Your task to perform on an android device: Toggle the flashlight Image 0: 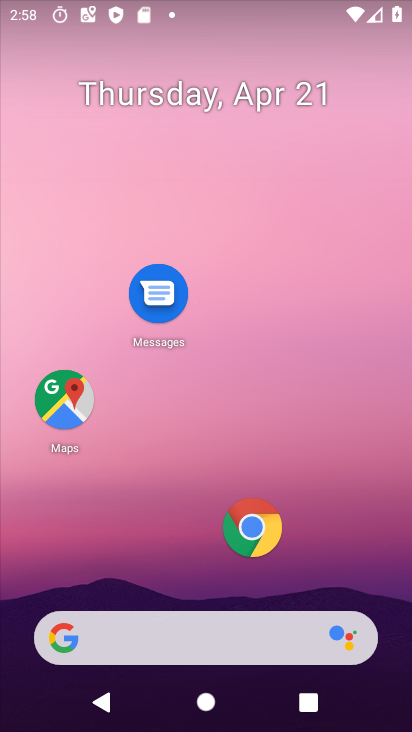
Step 0: drag from (260, 9) to (285, 353)
Your task to perform on an android device: Toggle the flashlight Image 1: 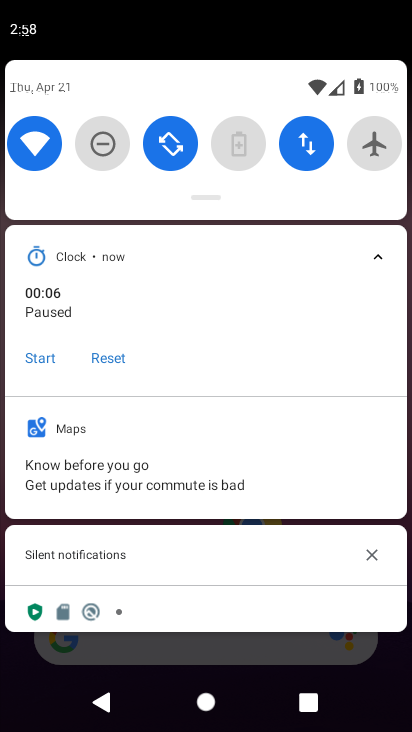
Step 1: drag from (256, 177) to (279, 452)
Your task to perform on an android device: Toggle the flashlight Image 2: 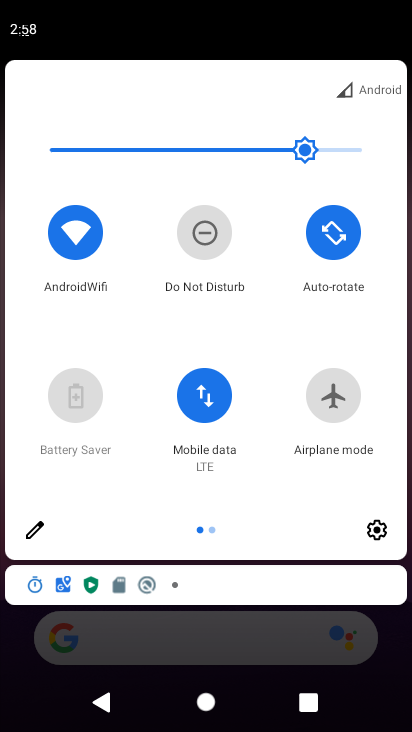
Step 2: drag from (386, 301) to (10, 359)
Your task to perform on an android device: Toggle the flashlight Image 3: 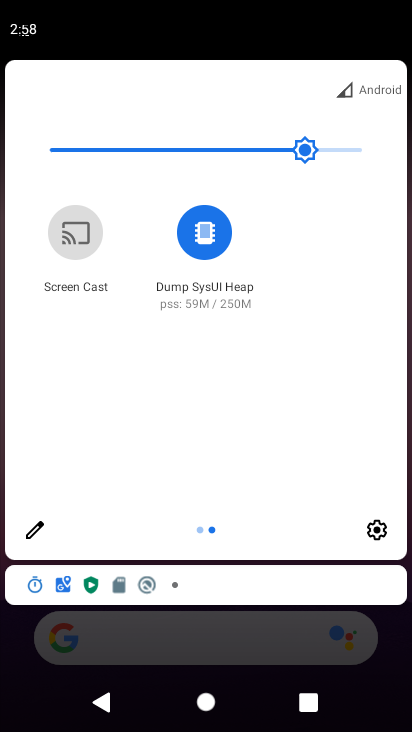
Step 3: click (35, 530)
Your task to perform on an android device: Toggle the flashlight Image 4: 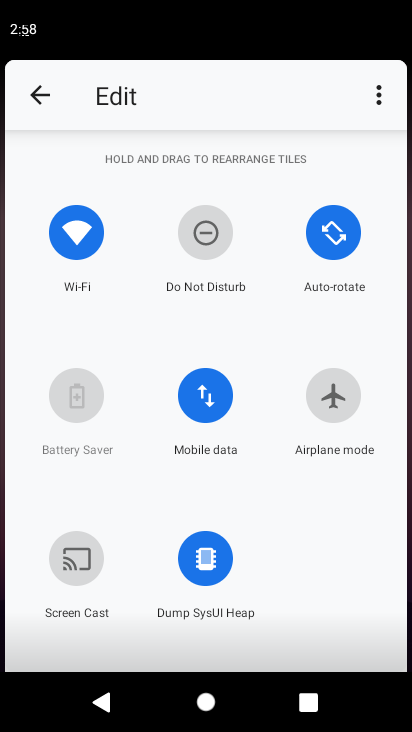
Step 4: task complete